Your task to perform on an android device: Show me popular videos on Youtube Image 0: 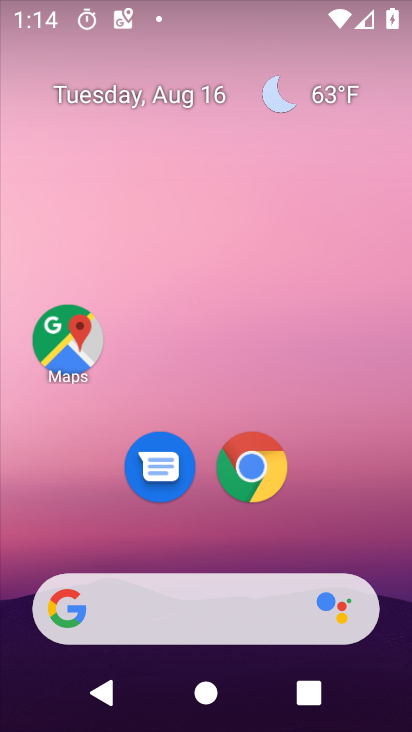
Step 0: press home button
Your task to perform on an android device: Show me popular videos on Youtube Image 1: 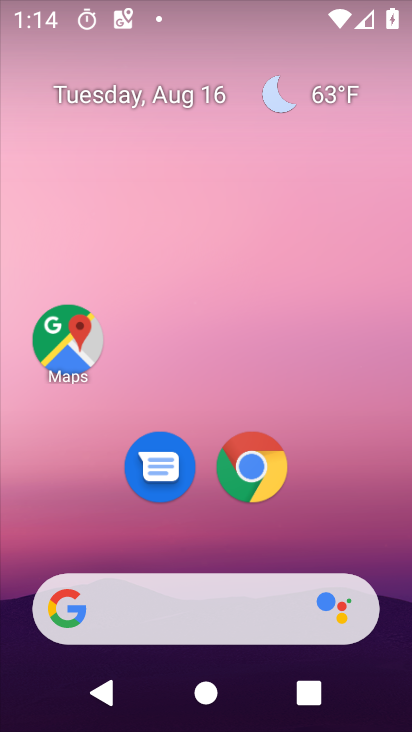
Step 1: drag from (389, 535) to (386, 98)
Your task to perform on an android device: Show me popular videos on Youtube Image 2: 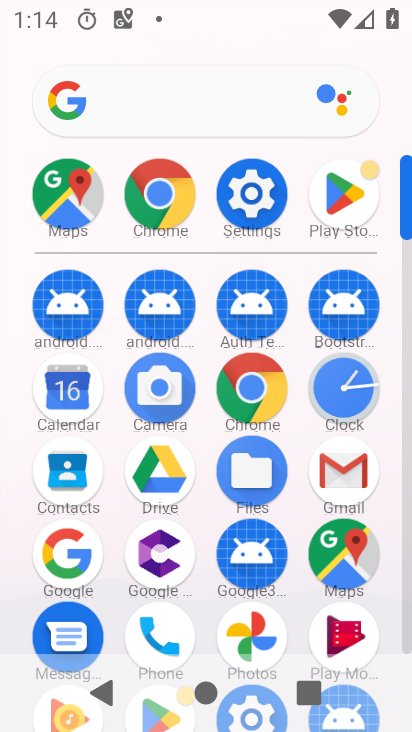
Step 2: drag from (389, 594) to (404, 298)
Your task to perform on an android device: Show me popular videos on Youtube Image 3: 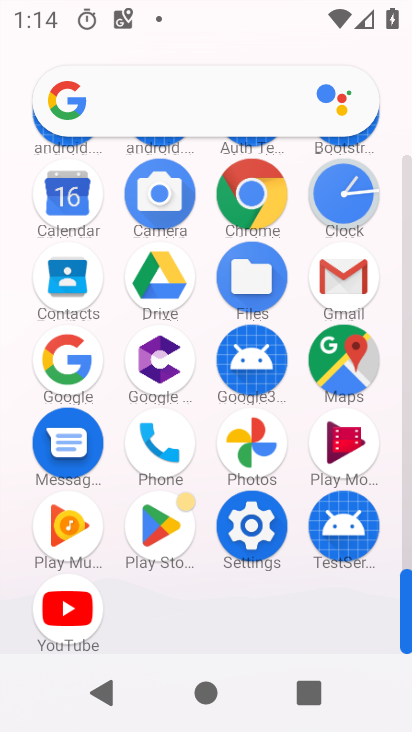
Step 3: click (72, 614)
Your task to perform on an android device: Show me popular videos on Youtube Image 4: 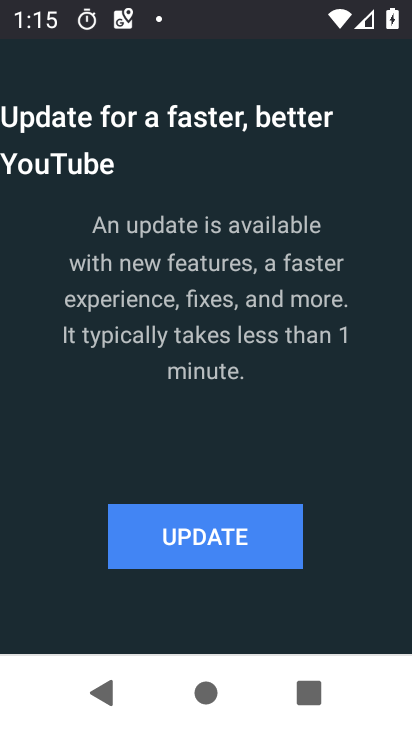
Step 4: click (224, 539)
Your task to perform on an android device: Show me popular videos on Youtube Image 5: 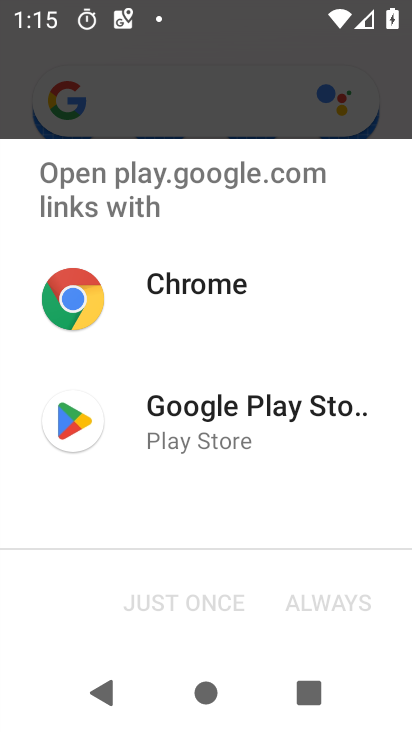
Step 5: click (219, 415)
Your task to perform on an android device: Show me popular videos on Youtube Image 6: 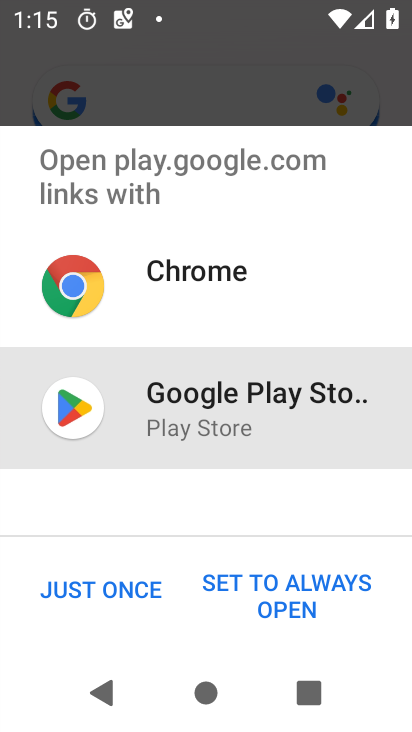
Step 6: click (76, 599)
Your task to perform on an android device: Show me popular videos on Youtube Image 7: 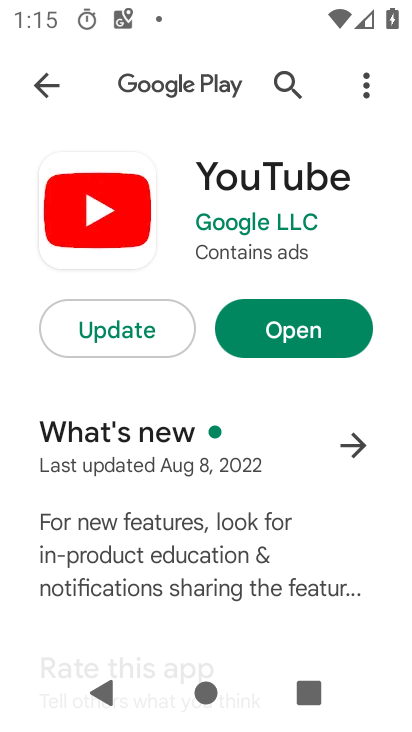
Step 7: click (132, 336)
Your task to perform on an android device: Show me popular videos on Youtube Image 8: 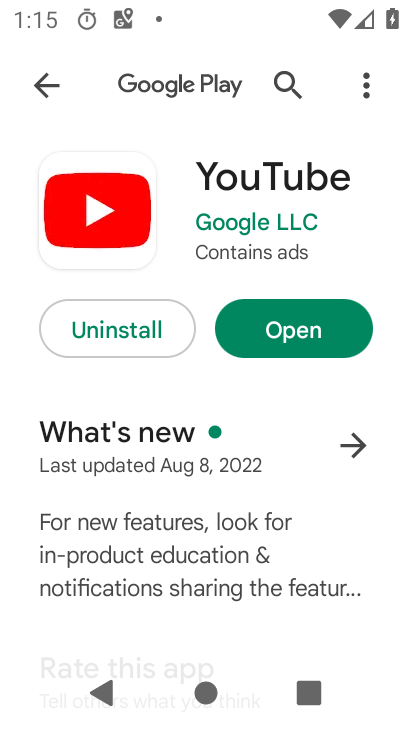
Step 8: click (294, 330)
Your task to perform on an android device: Show me popular videos on Youtube Image 9: 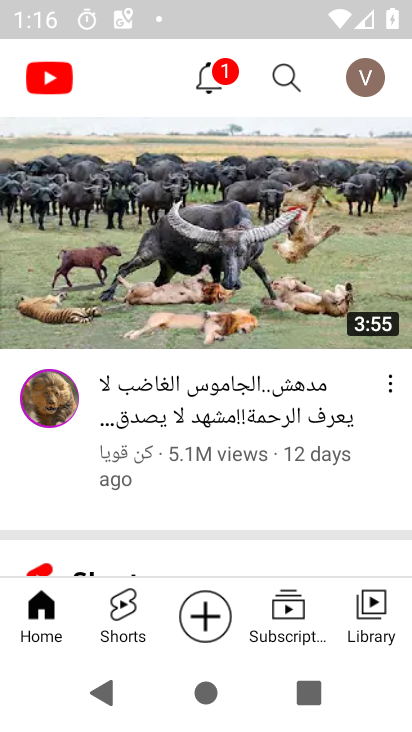
Step 9: task complete